Your task to perform on an android device: Search for Italian restaurants on Maps Image 0: 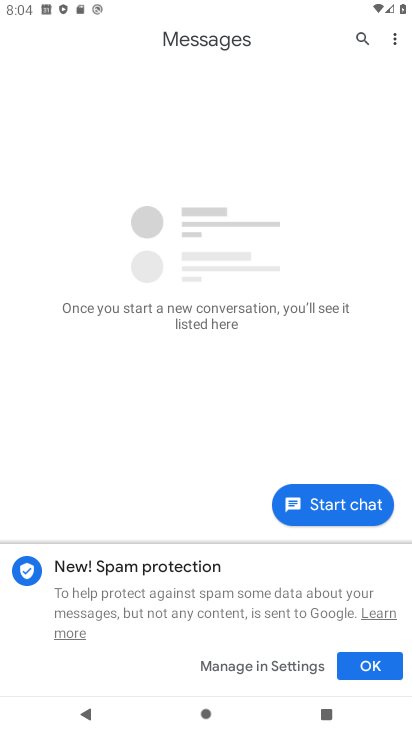
Step 0: press home button
Your task to perform on an android device: Search for Italian restaurants on Maps Image 1: 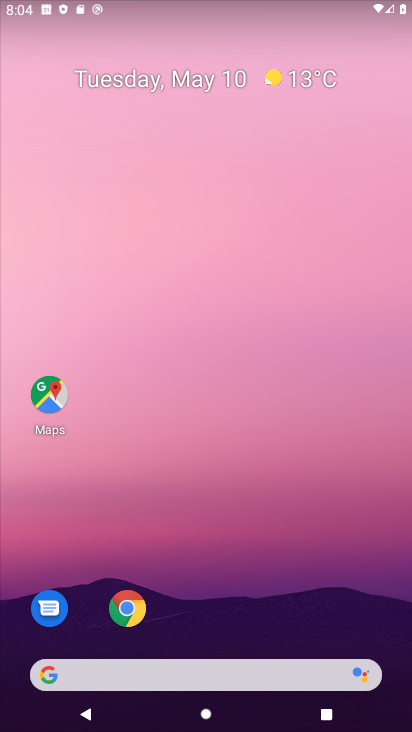
Step 1: click (53, 392)
Your task to perform on an android device: Search for Italian restaurants on Maps Image 2: 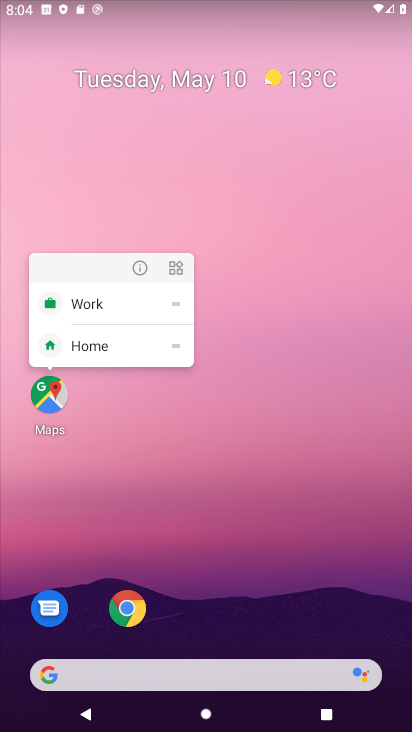
Step 2: click (43, 399)
Your task to perform on an android device: Search for Italian restaurants on Maps Image 3: 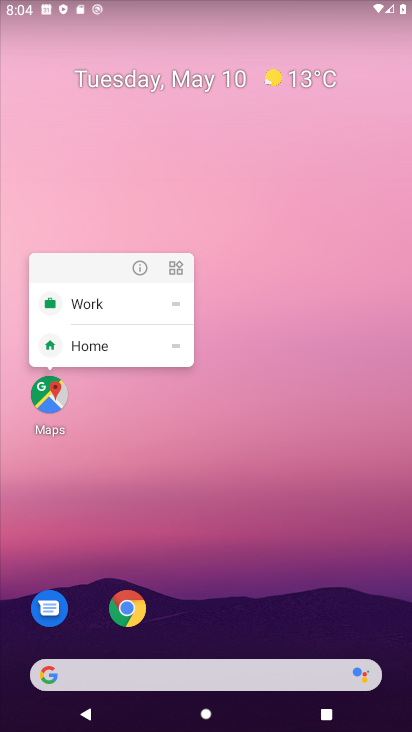
Step 3: click (48, 403)
Your task to perform on an android device: Search for Italian restaurants on Maps Image 4: 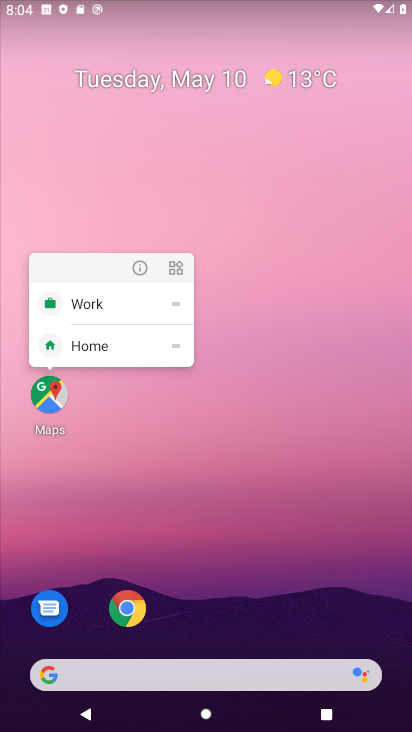
Step 4: click (50, 400)
Your task to perform on an android device: Search for Italian restaurants on Maps Image 5: 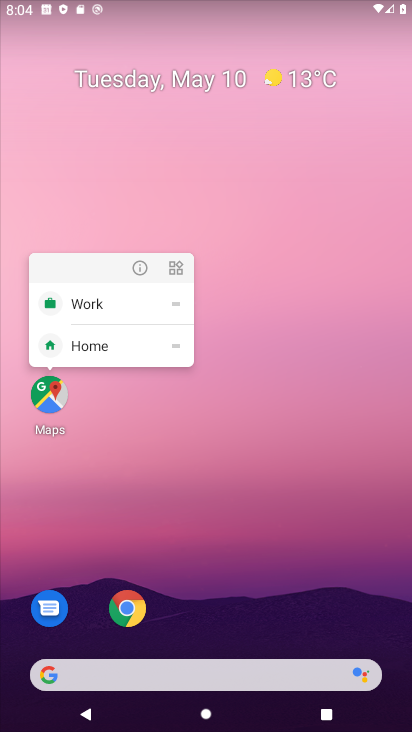
Step 5: click (50, 401)
Your task to perform on an android device: Search for Italian restaurants on Maps Image 6: 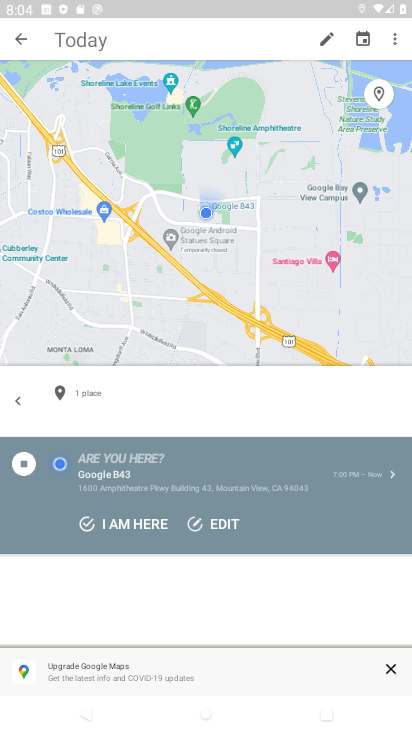
Step 6: click (18, 38)
Your task to perform on an android device: Search for Italian restaurants on Maps Image 7: 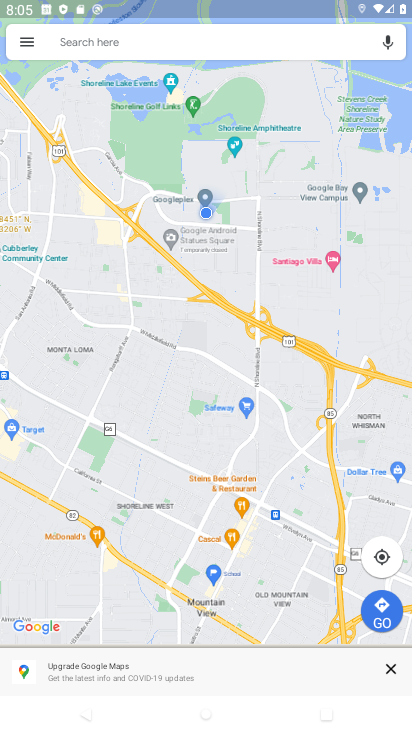
Step 7: click (110, 43)
Your task to perform on an android device: Search for Italian restaurants on Maps Image 8: 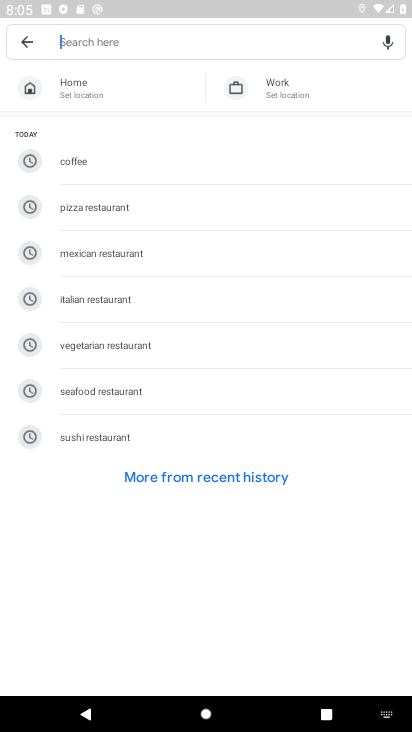
Step 8: click (103, 294)
Your task to perform on an android device: Search for Italian restaurants on Maps Image 9: 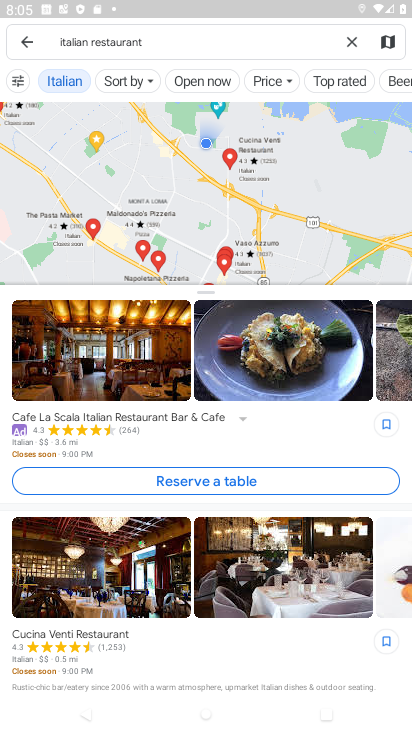
Step 9: task complete